Your task to perform on an android device: uninstall "DoorDash - Dasher" Image 0: 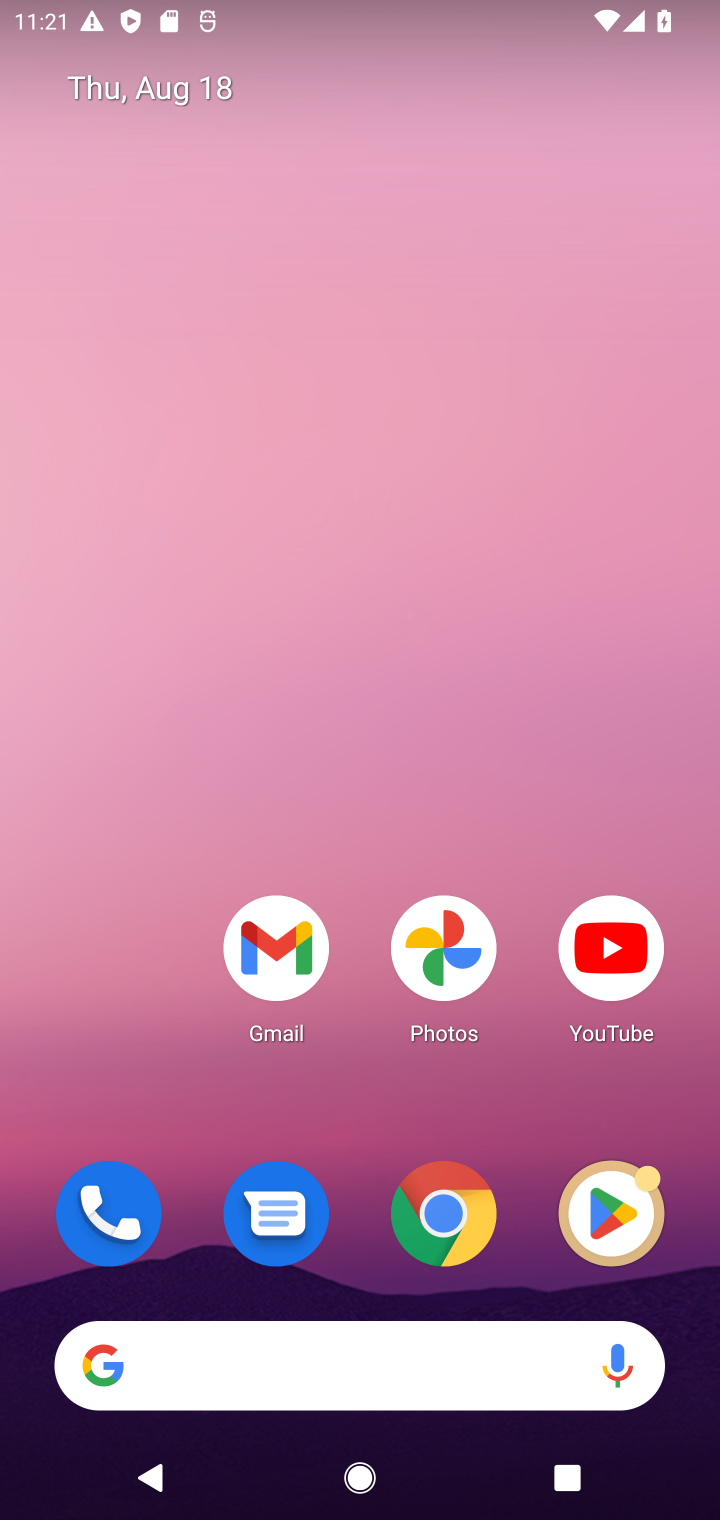
Step 0: press home button
Your task to perform on an android device: uninstall "DoorDash - Dasher" Image 1: 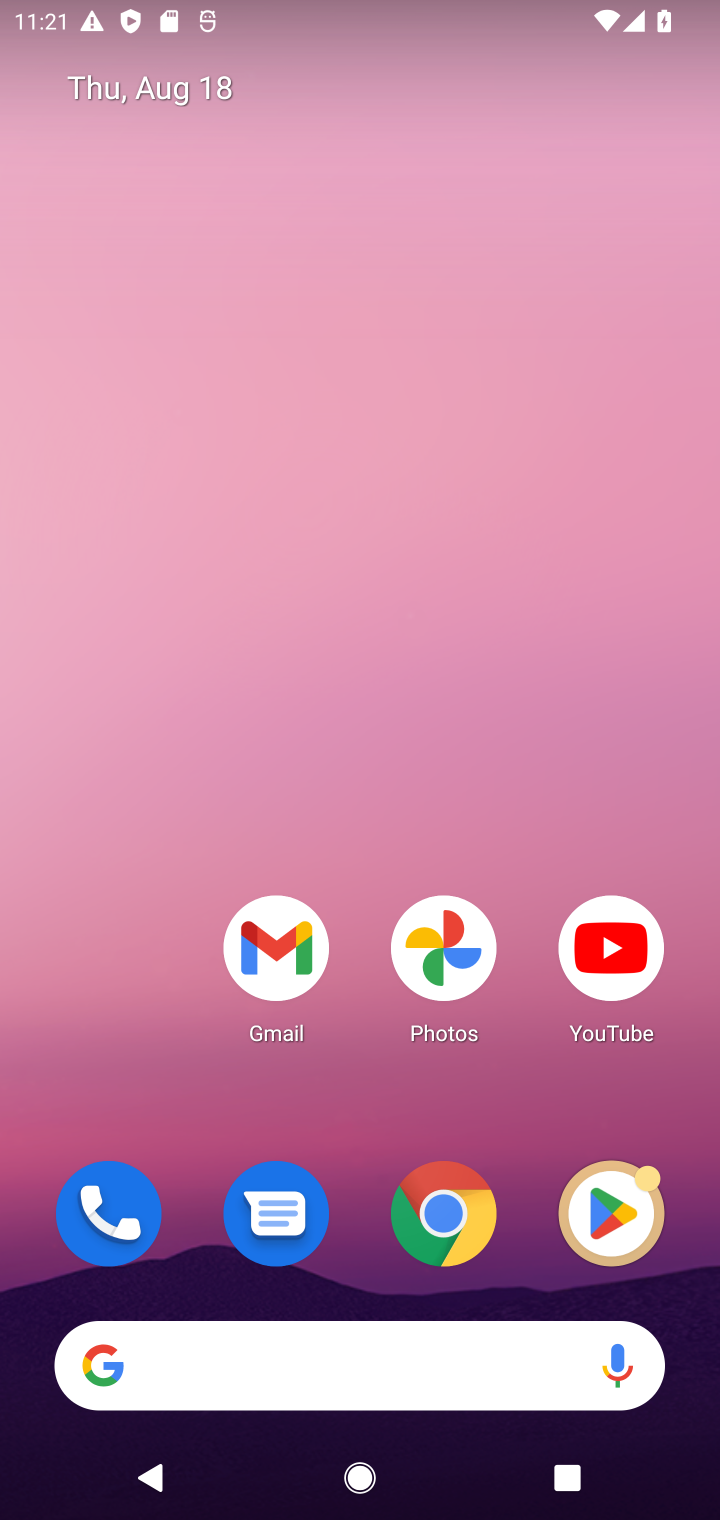
Step 1: drag from (366, 1135) to (467, 2)
Your task to perform on an android device: uninstall "DoorDash - Dasher" Image 2: 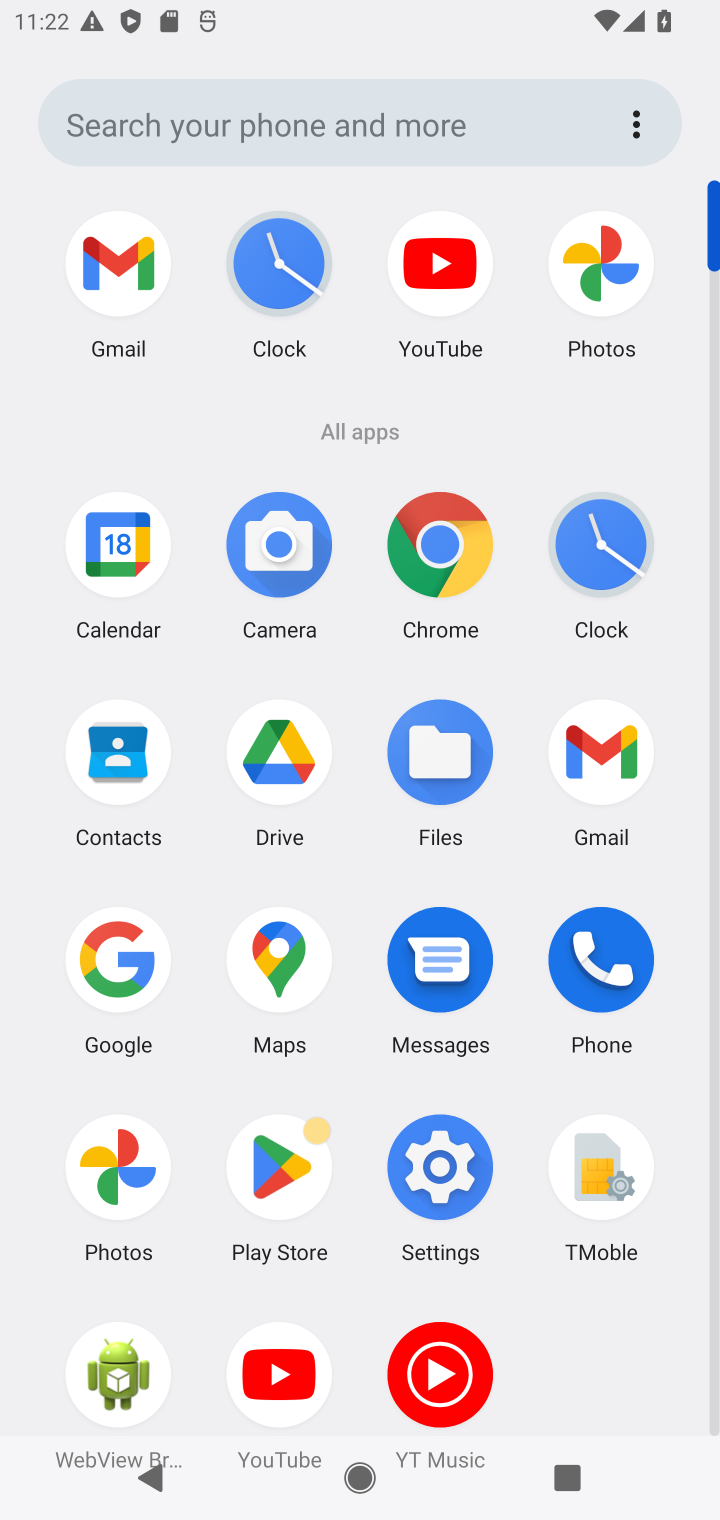
Step 2: click (268, 1159)
Your task to perform on an android device: uninstall "DoorDash - Dasher" Image 3: 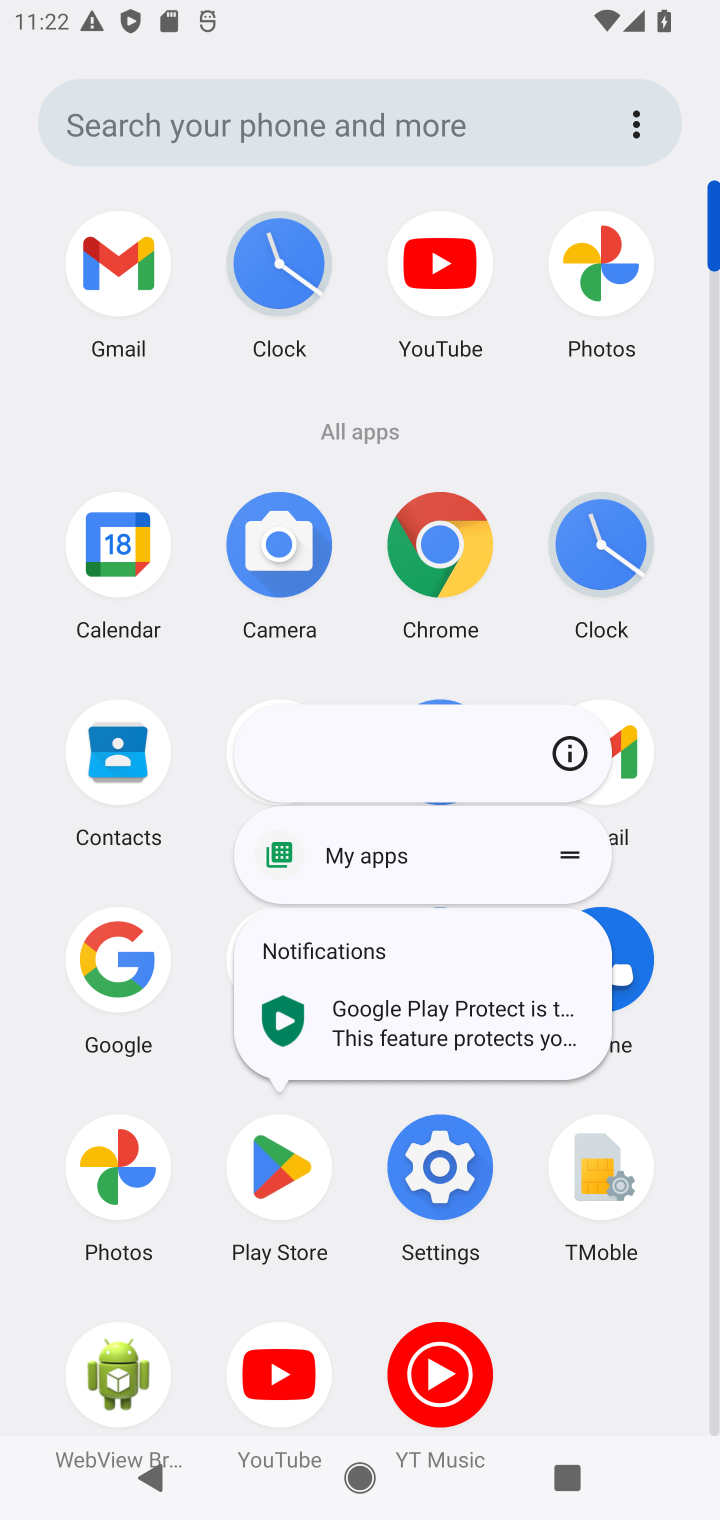
Step 3: click (273, 1176)
Your task to perform on an android device: uninstall "DoorDash - Dasher" Image 4: 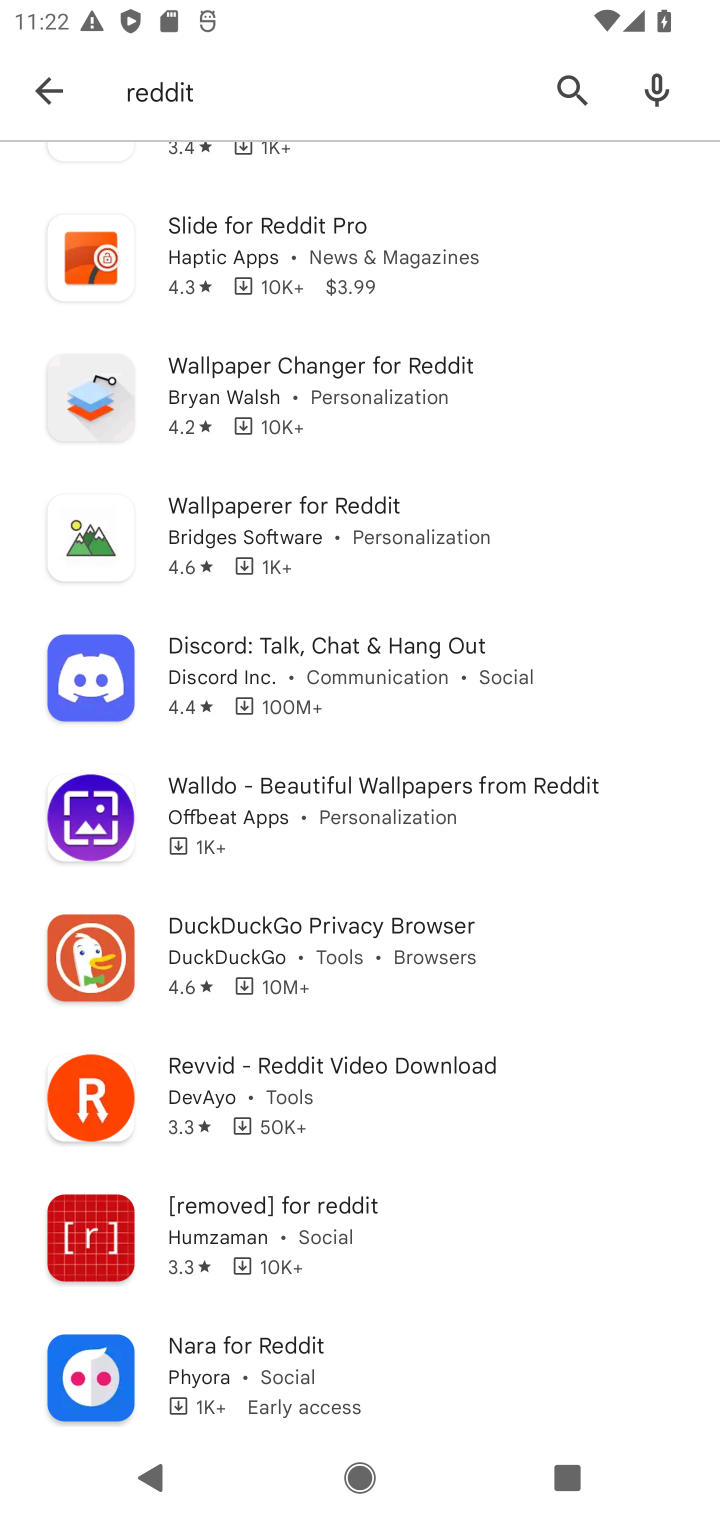
Step 4: click (578, 68)
Your task to perform on an android device: uninstall "DoorDash - Dasher" Image 5: 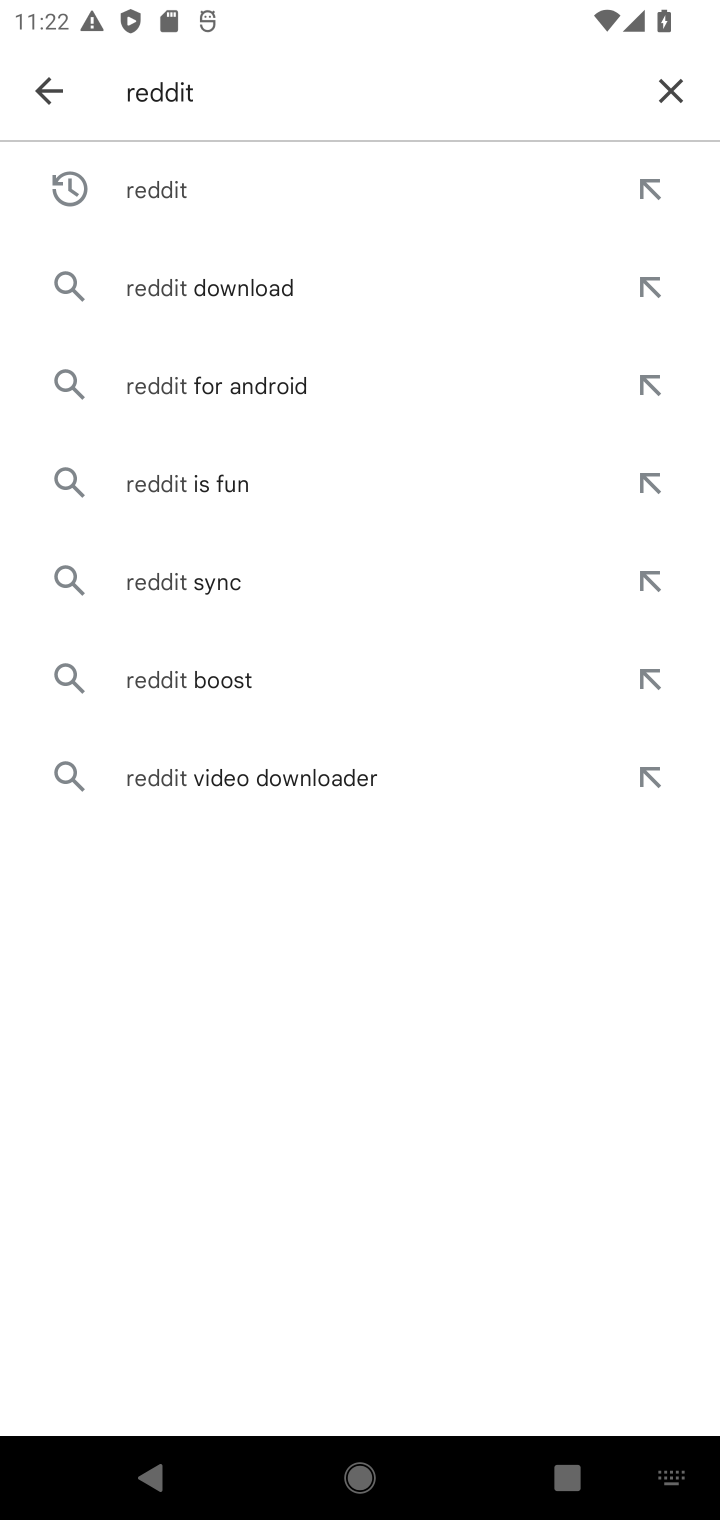
Step 5: click (664, 97)
Your task to perform on an android device: uninstall "DoorDash - Dasher" Image 6: 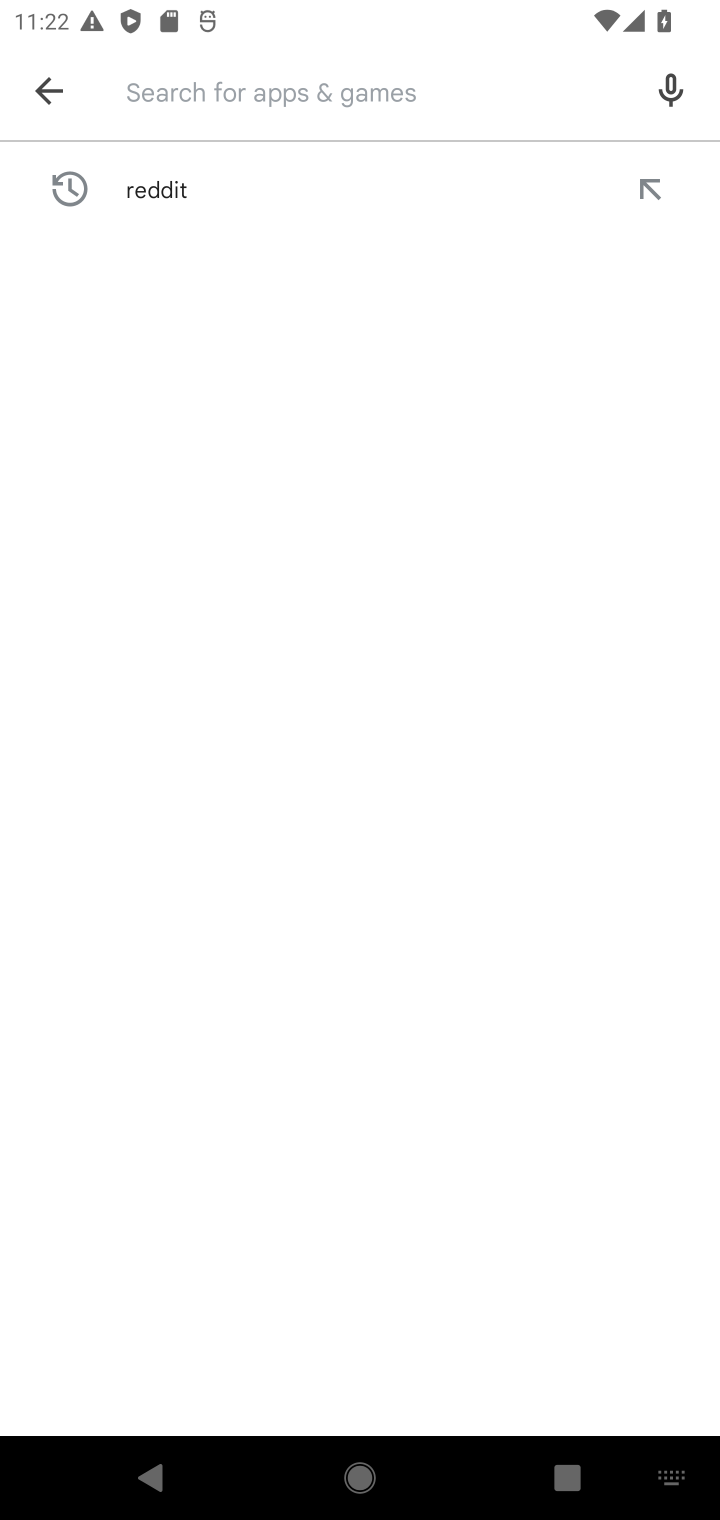
Step 6: type "DoorDash - Dasher"
Your task to perform on an android device: uninstall "DoorDash - Dasher" Image 7: 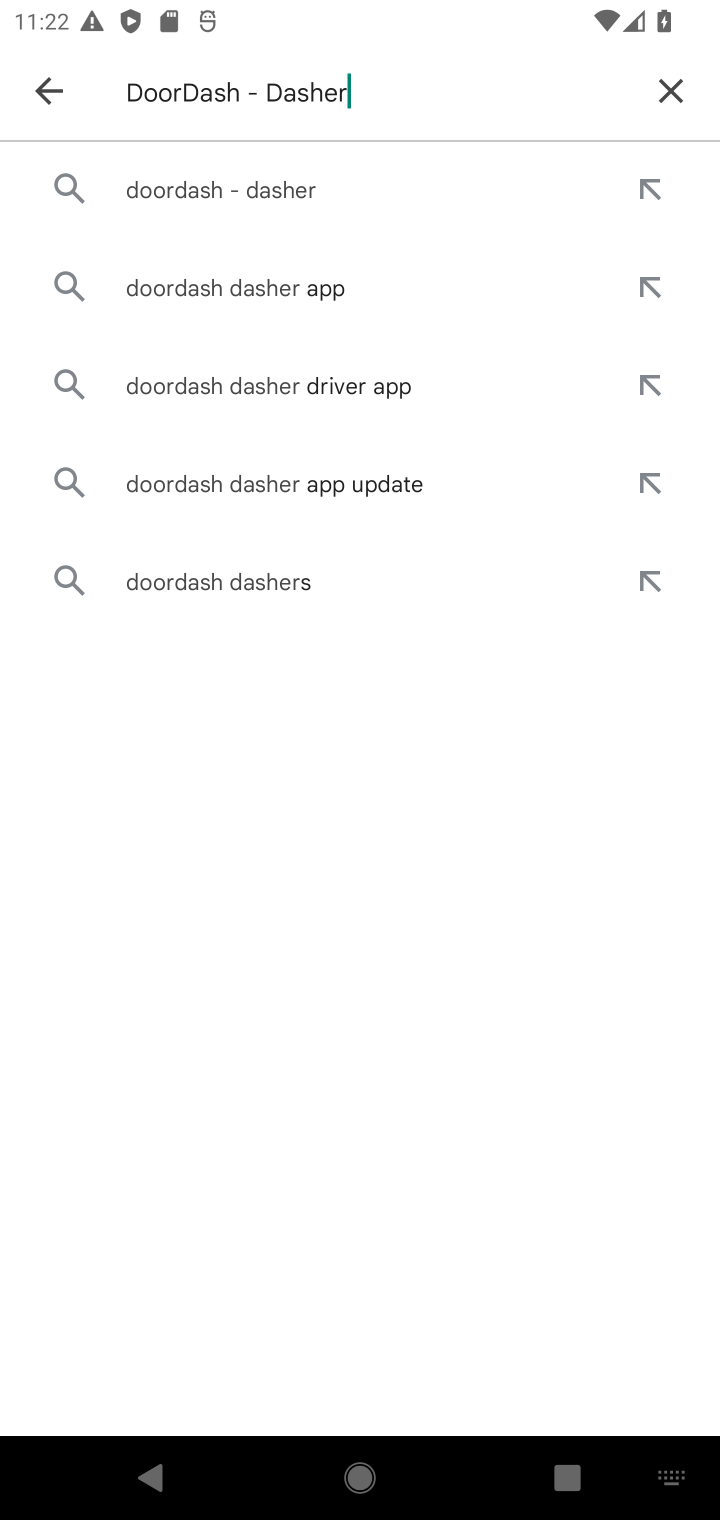
Step 7: click (189, 183)
Your task to perform on an android device: uninstall "DoorDash - Dasher" Image 8: 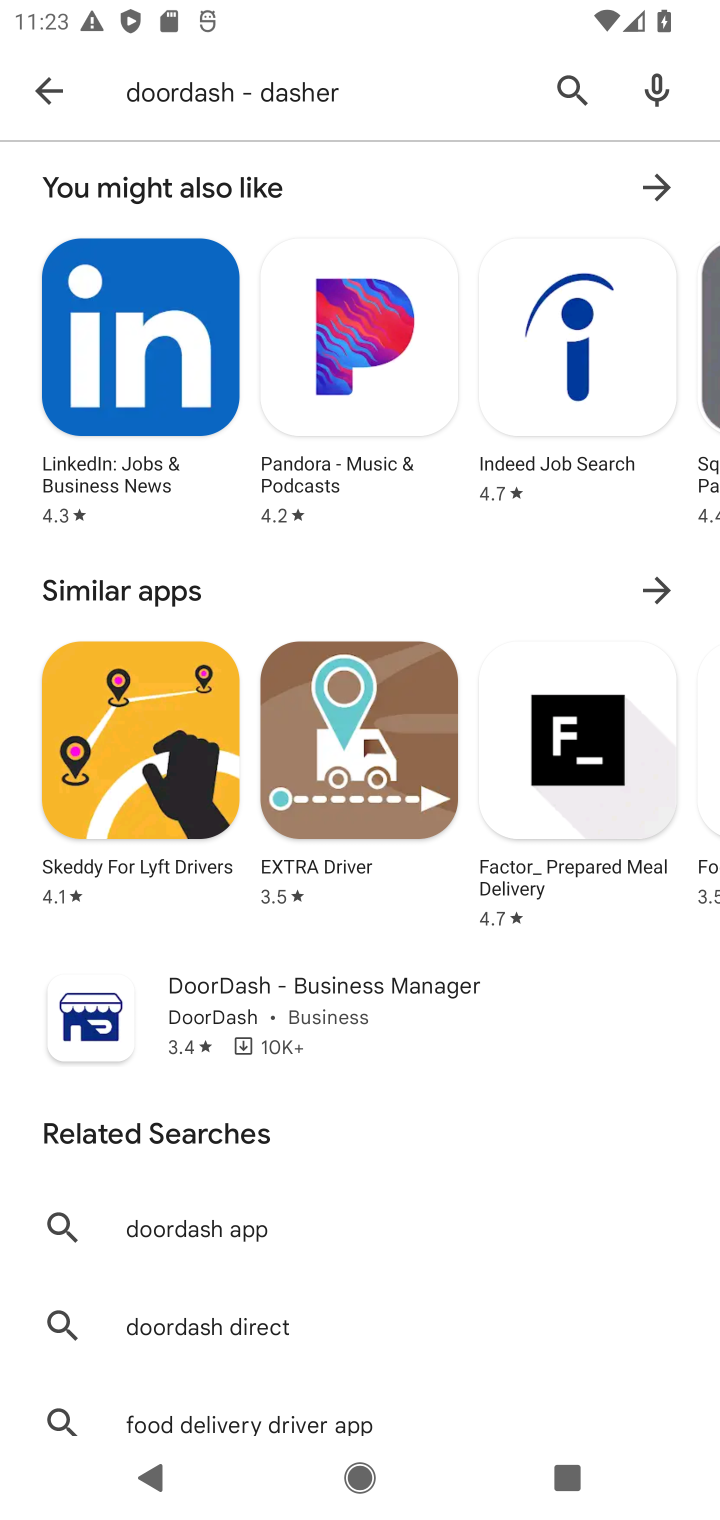
Step 8: click (271, 1020)
Your task to perform on an android device: uninstall "DoorDash - Dasher" Image 9: 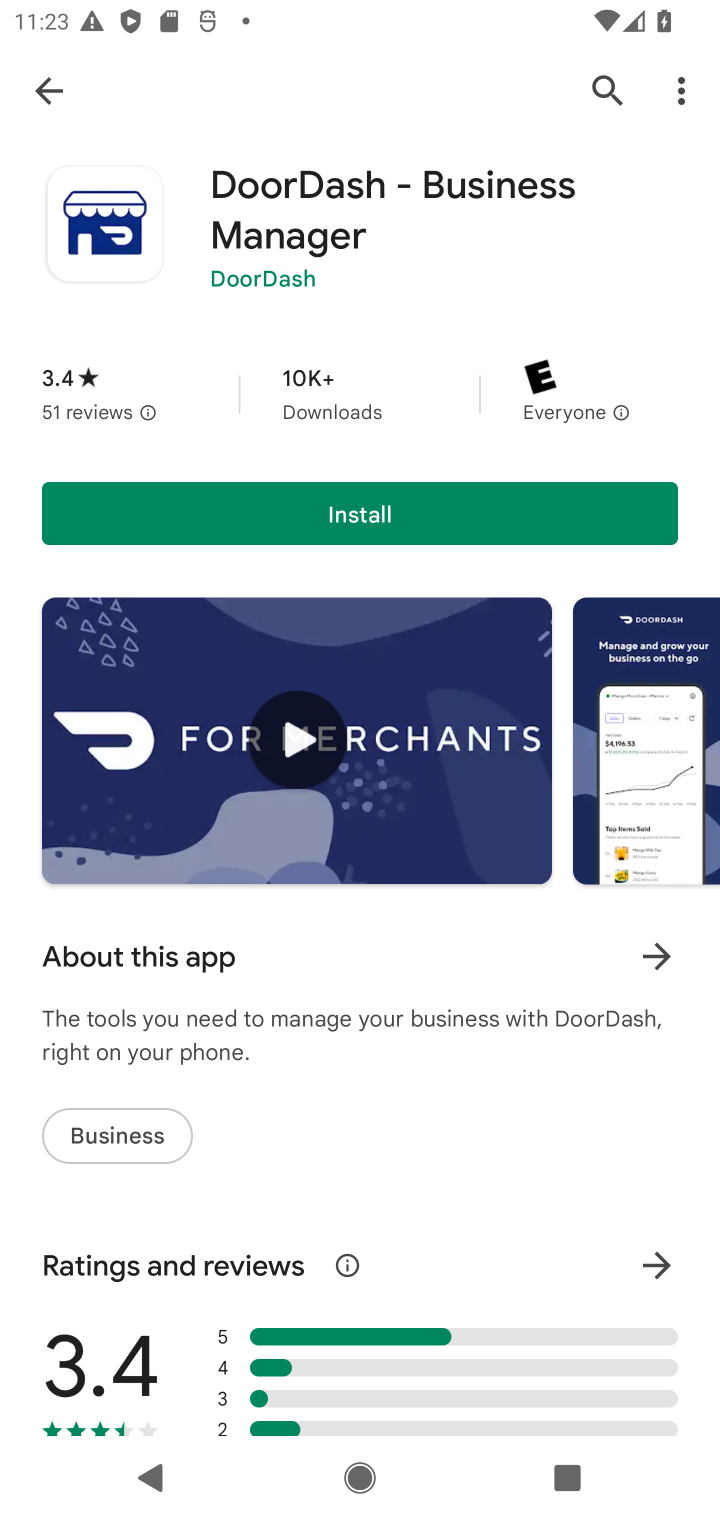
Step 9: task complete